Your task to perform on an android device: toggle airplane mode Image 0: 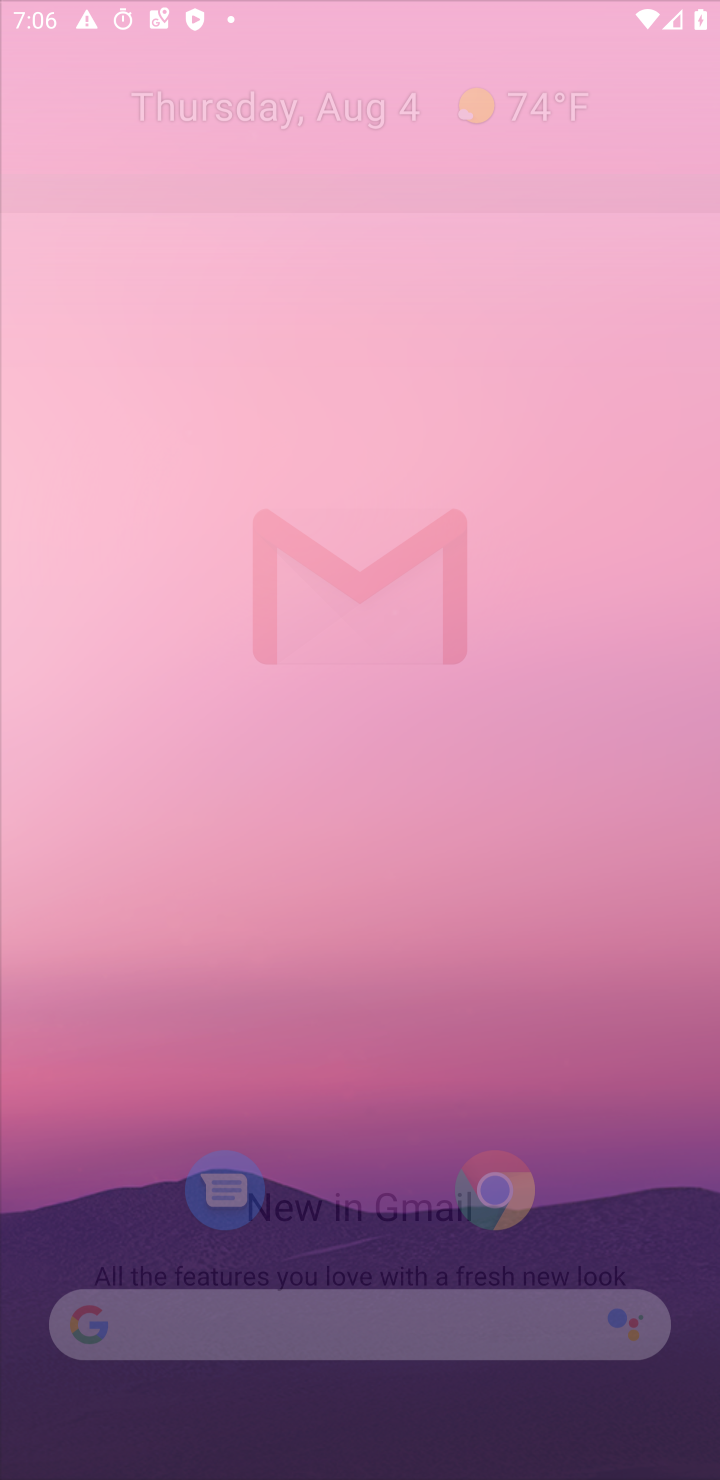
Step 0: press home button
Your task to perform on an android device: toggle airplane mode Image 1: 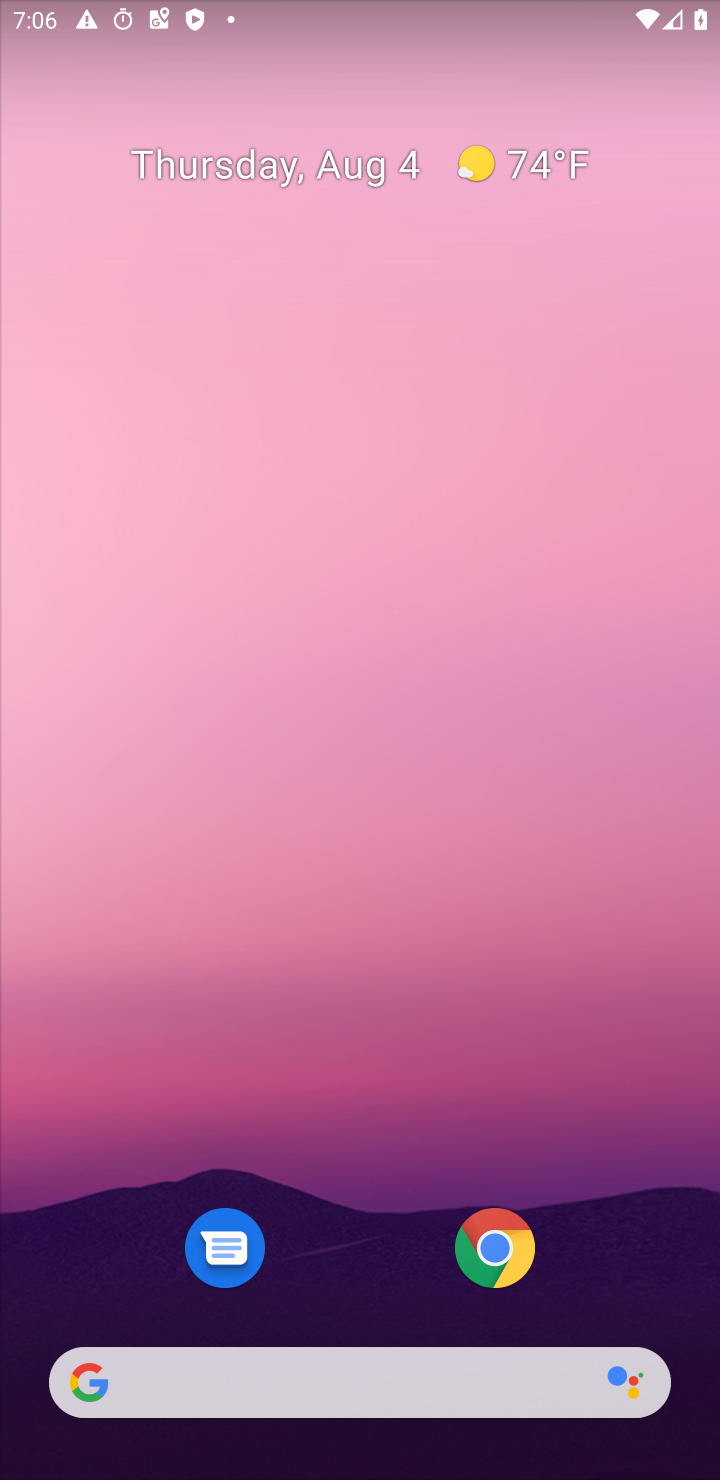
Step 1: drag from (416, 1405) to (425, 225)
Your task to perform on an android device: toggle airplane mode Image 2: 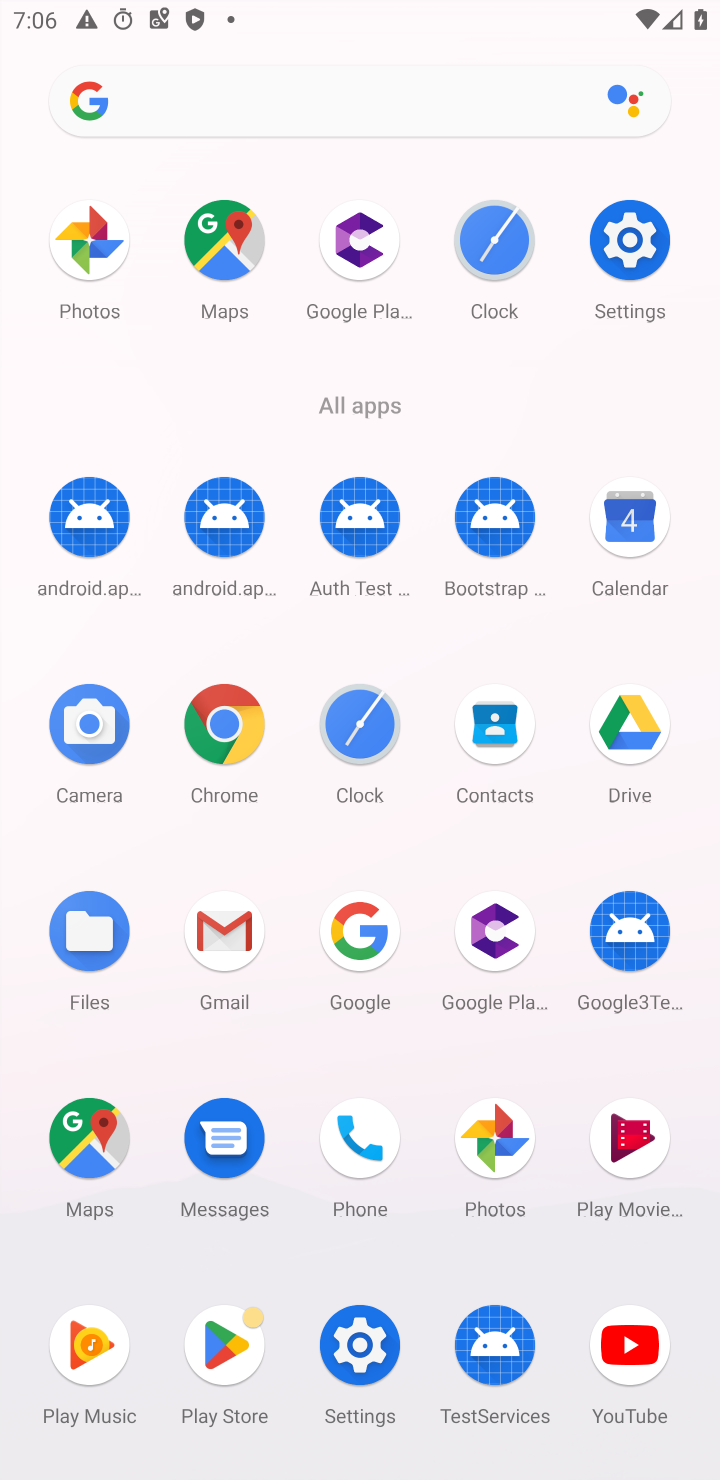
Step 2: click (639, 258)
Your task to perform on an android device: toggle airplane mode Image 3: 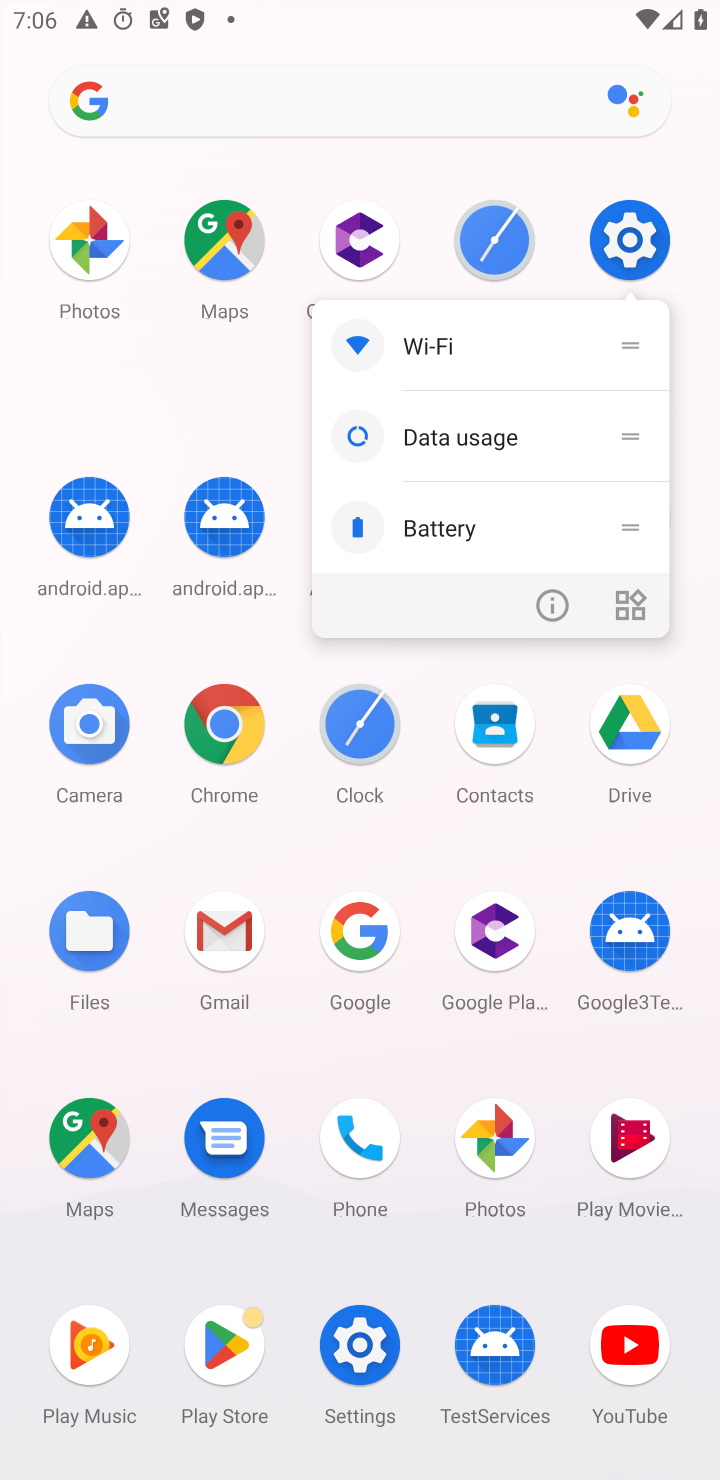
Step 3: click (633, 238)
Your task to perform on an android device: toggle airplane mode Image 4: 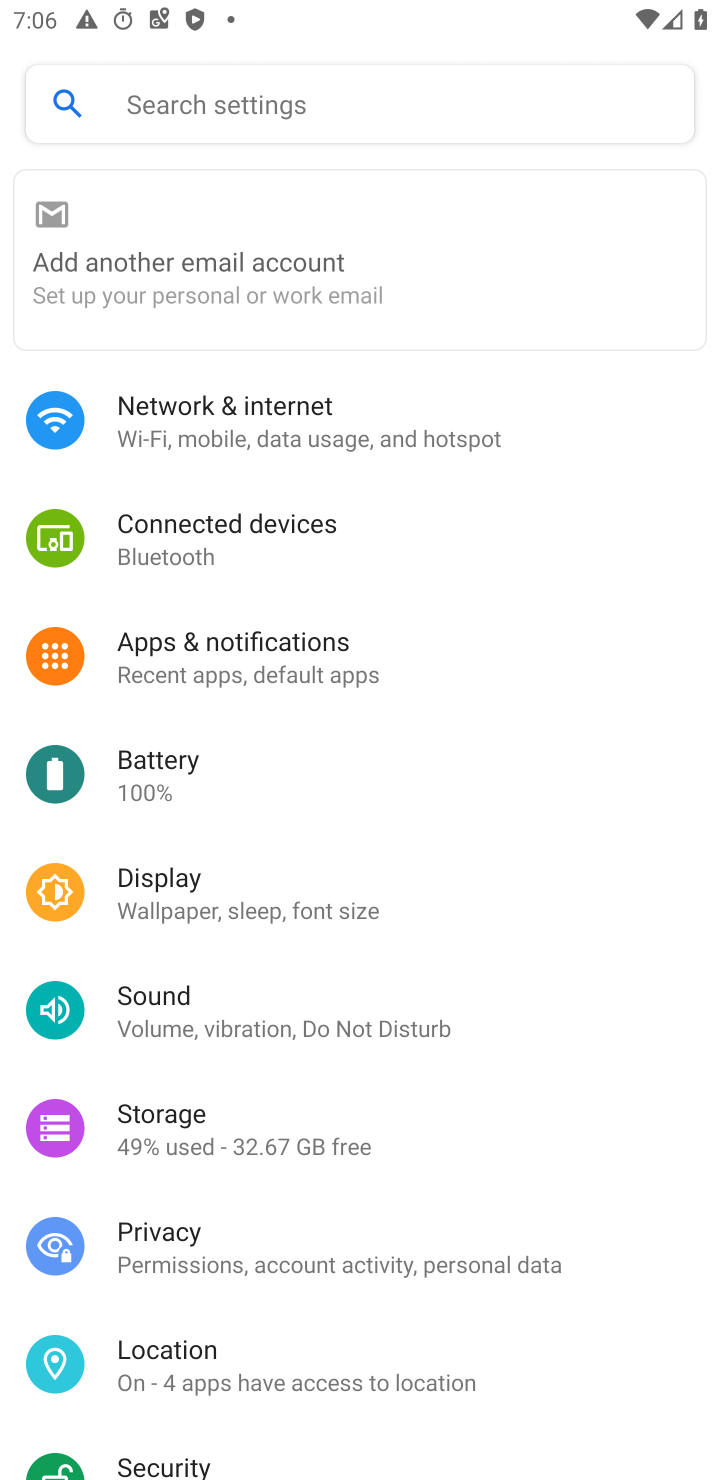
Step 4: click (610, 244)
Your task to perform on an android device: toggle airplane mode Image 5: 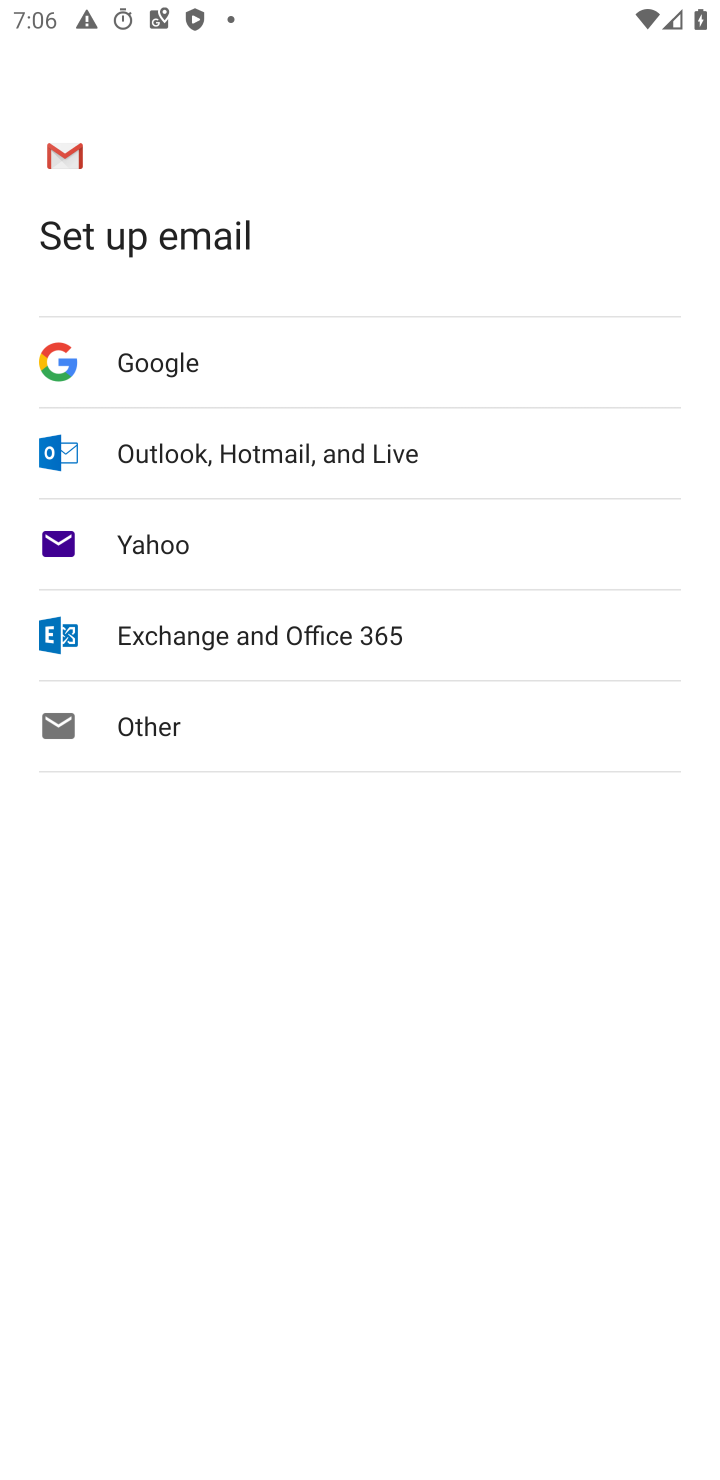
Step 5: press back button
Your task to perform on an android device: toggle airplane mode Image 6: 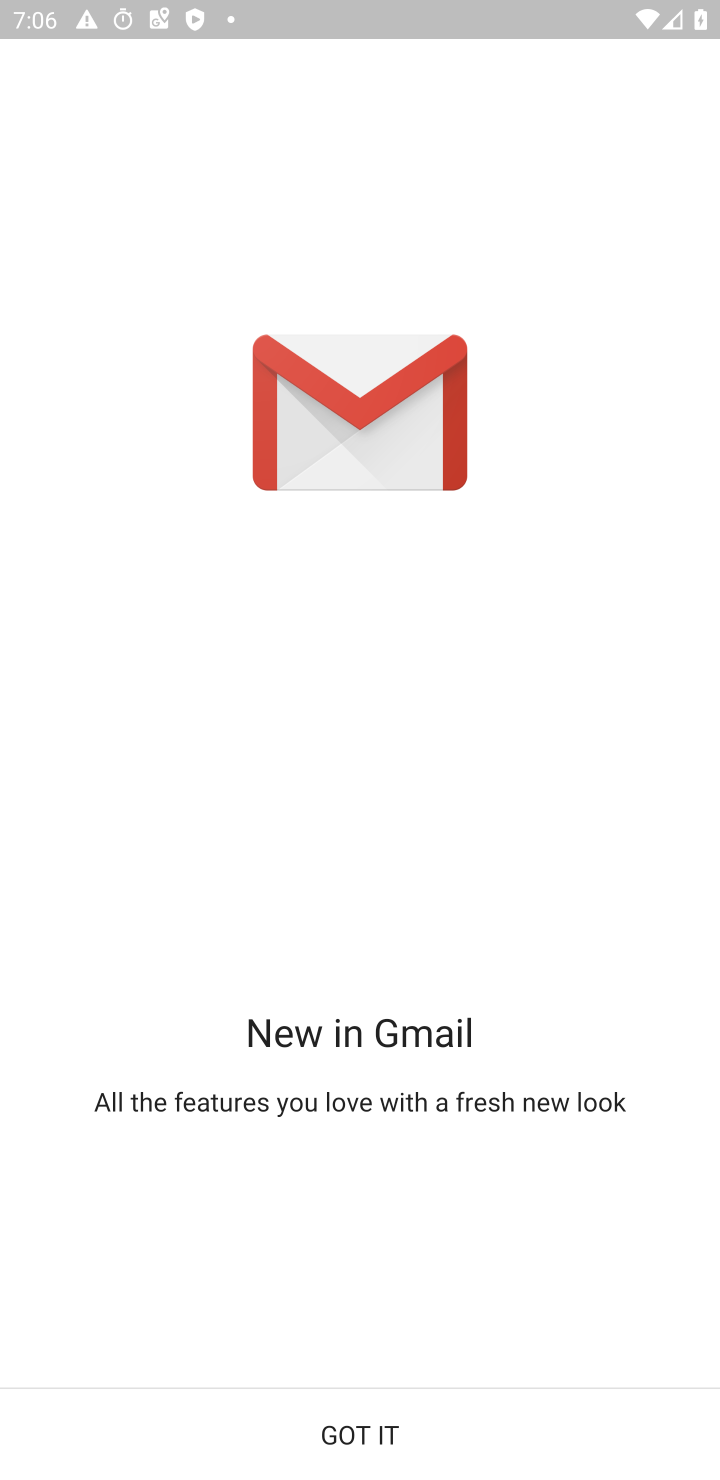
Step 6: press back button
Your task to perform on an android device: toggle airplane mode Image 7: 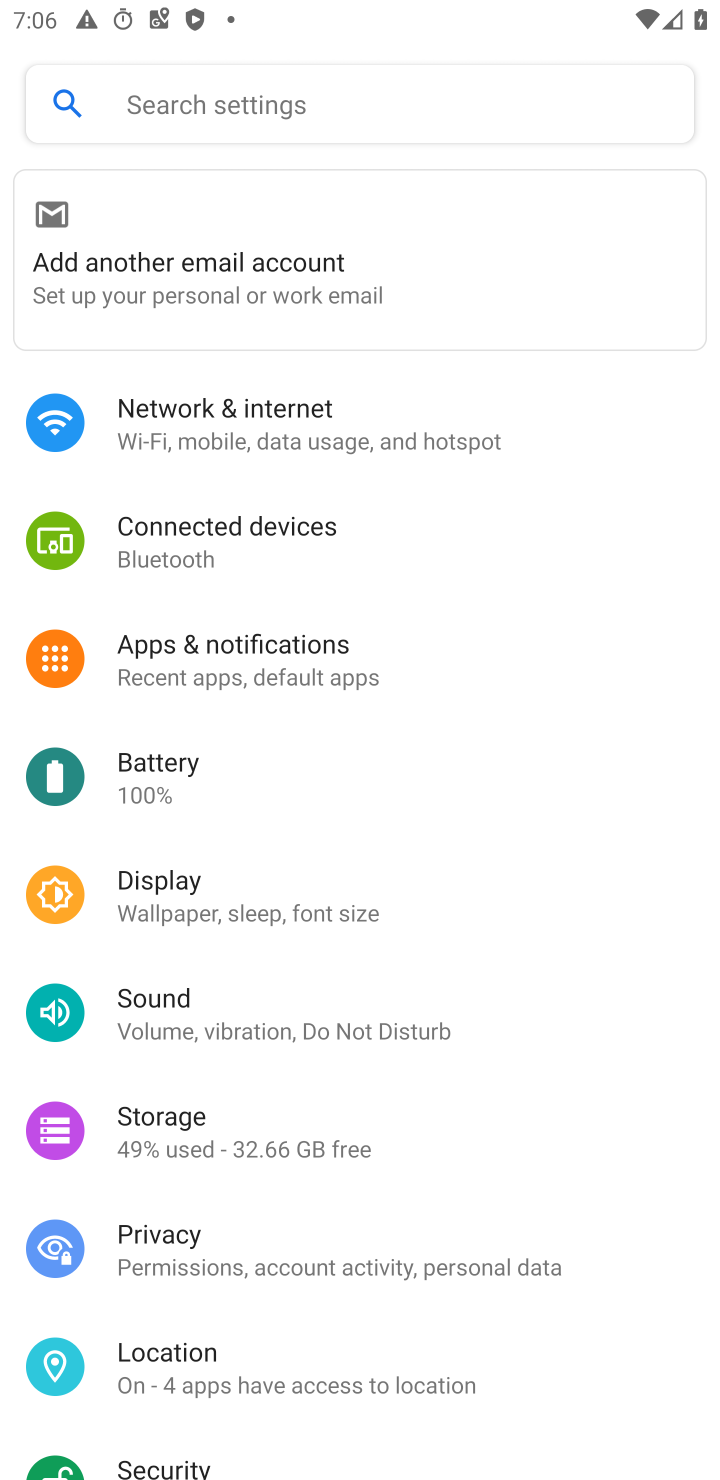
Step 7: click (239, 440)
Your task to perform on an android device: toggle airplane mode Image 8: 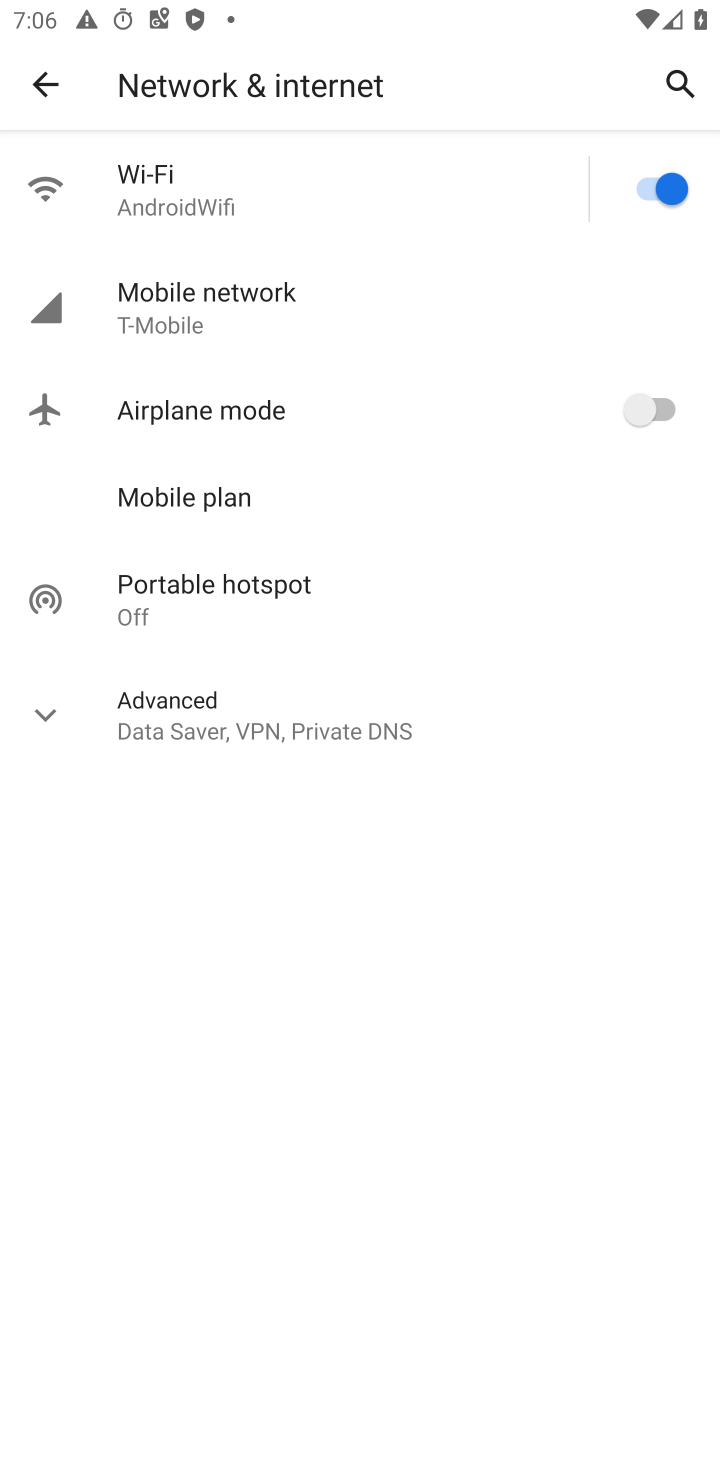
Step 8: click (492, 419)
Your task to perform on an android device: toggle airplane mode Image 9: 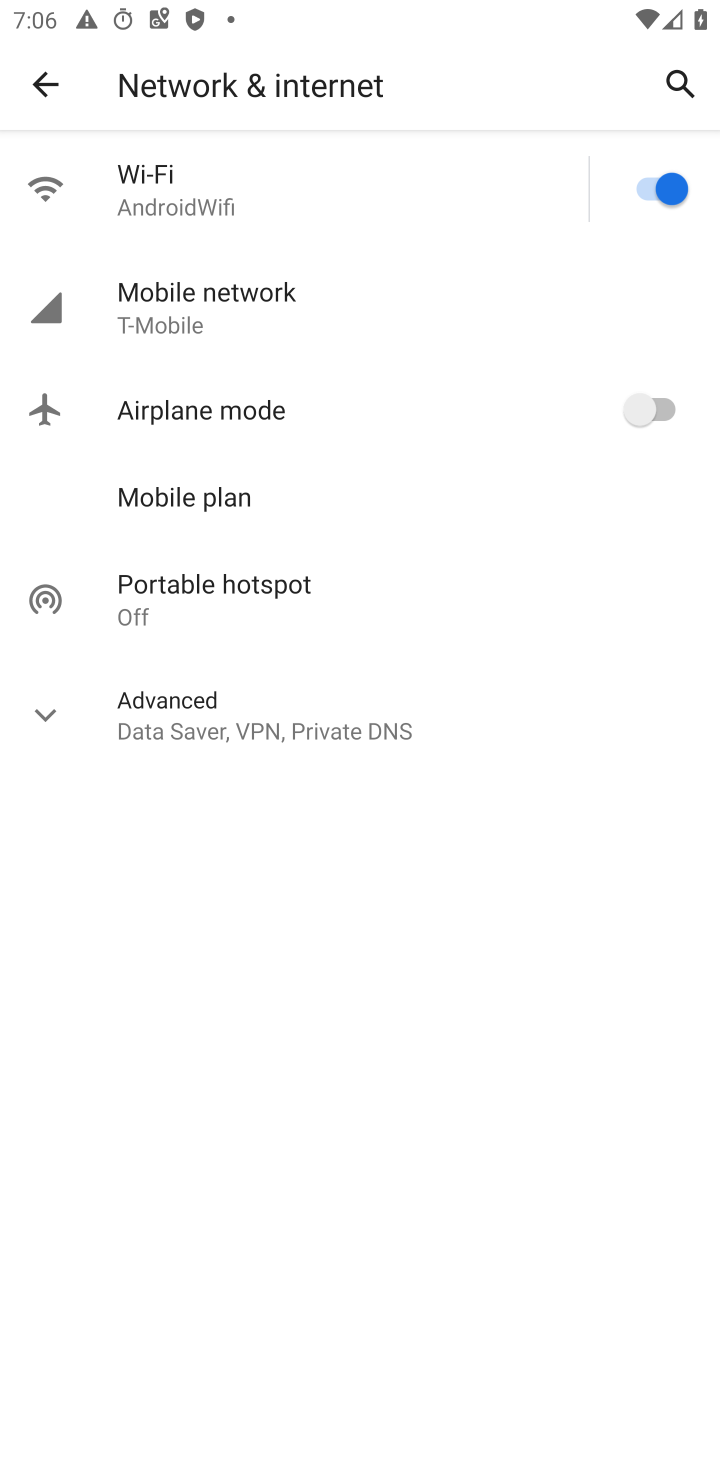
Step 9: click (492, 419)
Your task to perform on an android device: toggle airplane mode Image 10: 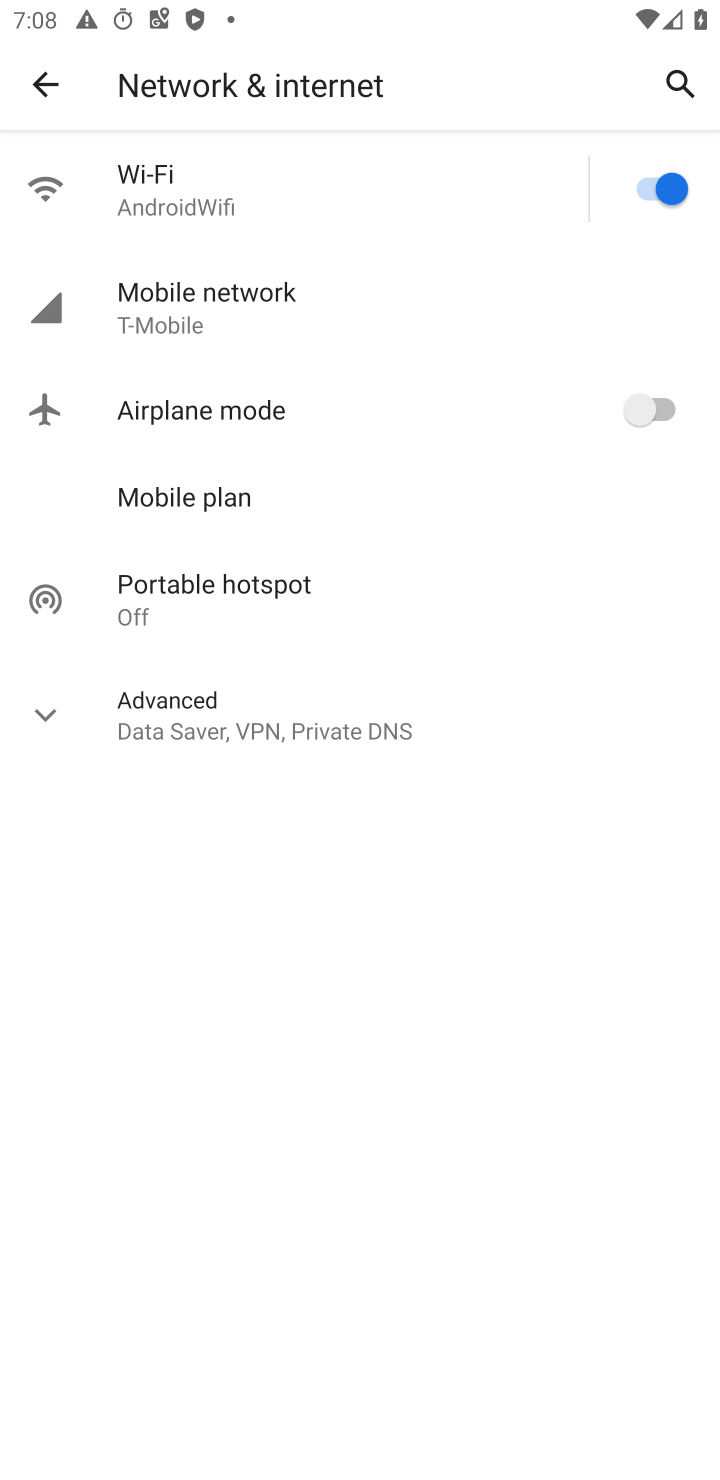
Step 10: task complete